Your task to perform on an android device: empty trash in google photos Image 0: 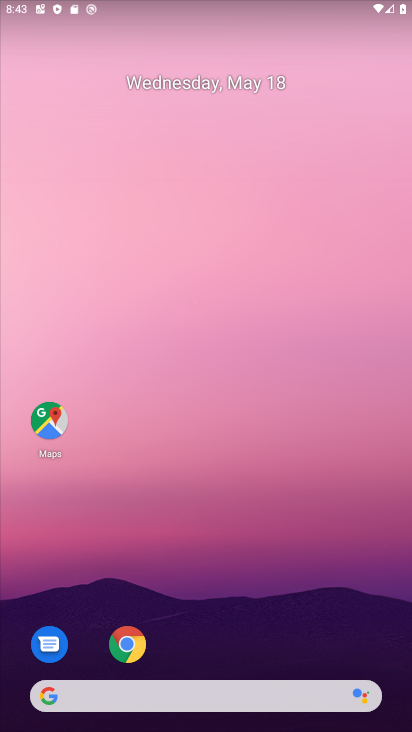
Step 0: drag from (212, 606) to (227, 72)
Your task to perform on an android device: empty trash in google photos Image 1: 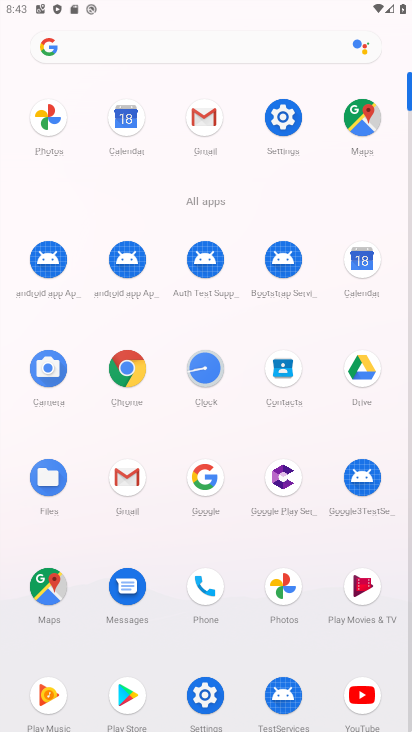
Step 1: click (43, 132)
Your task to perform on an android device: empty trash in google photos Image 2: 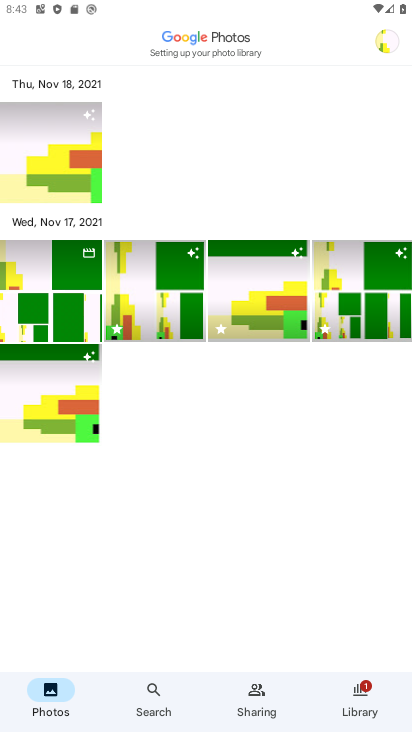
Step 2: click (23, 43)
Your task to perform on an android device: empty trash in google photos Image 3: 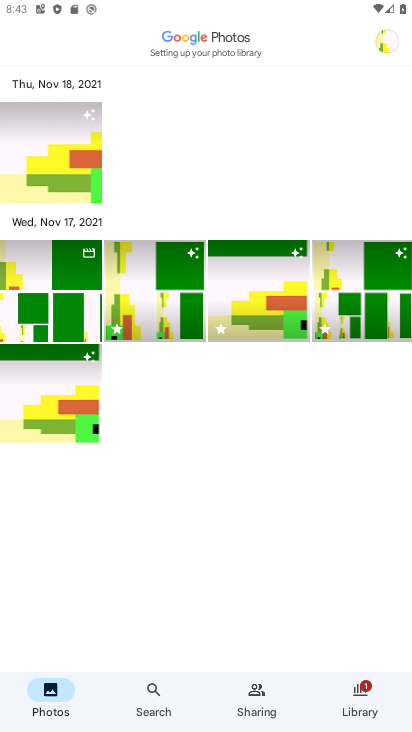
Step 3: click (385, 43)
Your task to perform on an android device: empty trash in google photos Image 4: 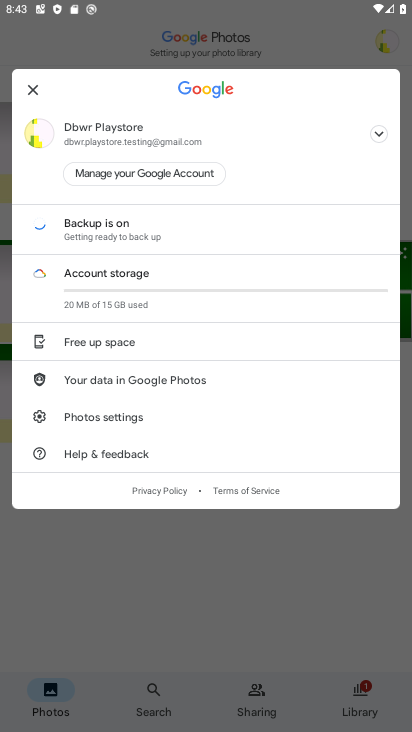
Step 4: task complete